Your task to perform on an android device: toggle javascript in the chrome app Image 0: 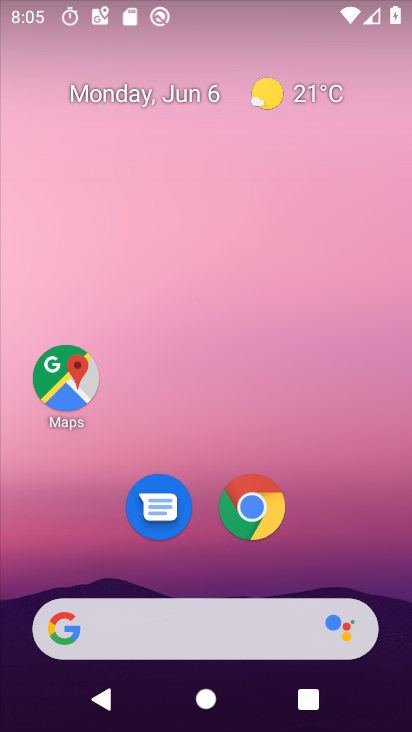
Step 0: click (236, 514)
Your task to perform on an android device: toggle javascript in the chrome app Image 1: 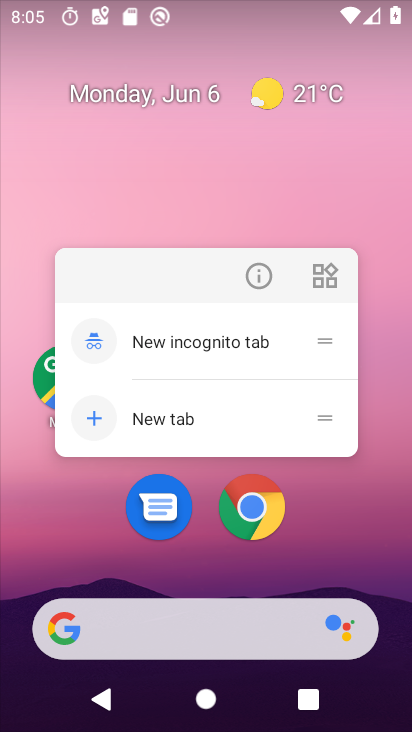
Step 1: click (234, 514)
Your task to perform on an android device: toggle javascript in the chrome app Image 2: 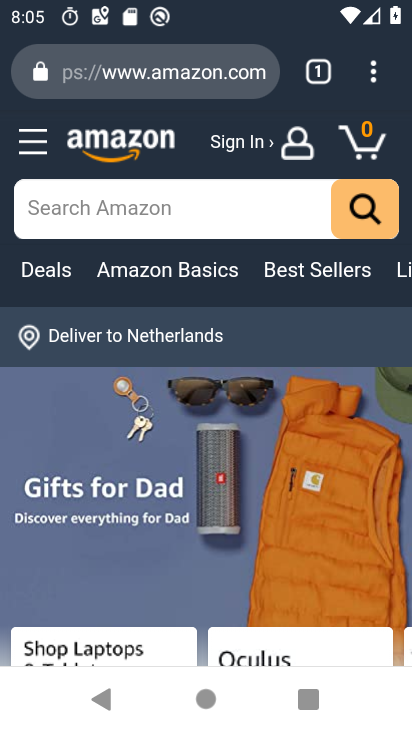
Step 2: drag from (368, 75) to (174, 514)
Your task to perform on an android device: toggle javascript in the chrome app Image 3: 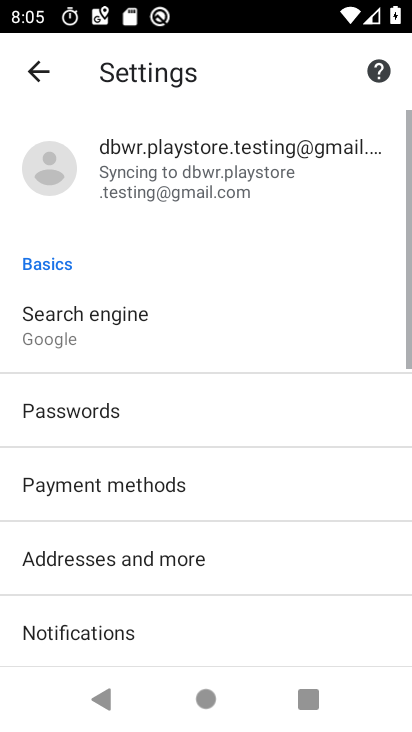
Step 3: drag from (164, 344) to (157, 122)
Your task to perform on an android device: toggle javascript in the chrome app Image 4: 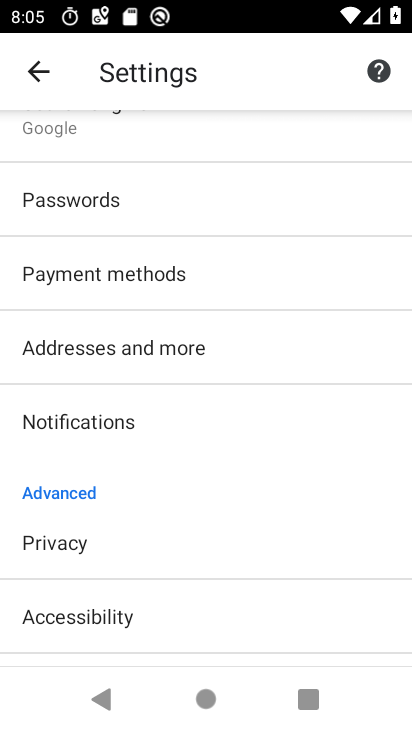
Step 4: drag from (170, 559) to (234, 97)
Your task to perform on an android device: toggle javascript in the chrome app Image 5: 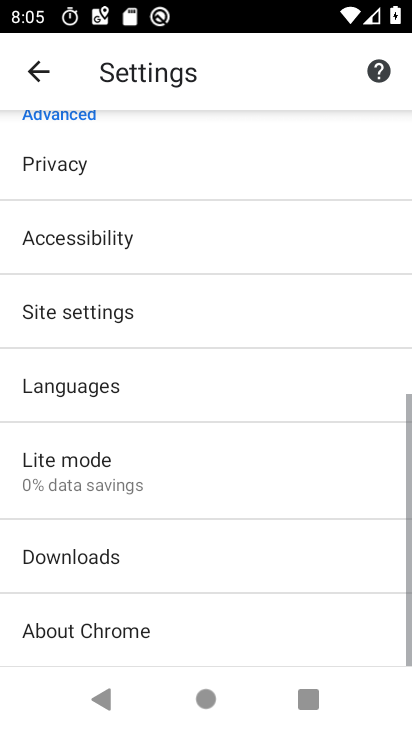
Step 5: click (107, 324)
Your task to perform on an android device: toggle javascript in the chrome app Image 6: 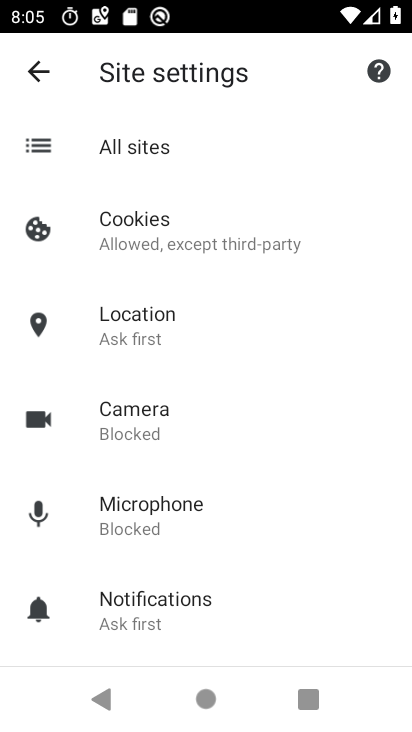
Step 6: drag from (172, 607) to (293, 174)
Your task to perform on an android device: toggle javascript in the chrome app Image 7: 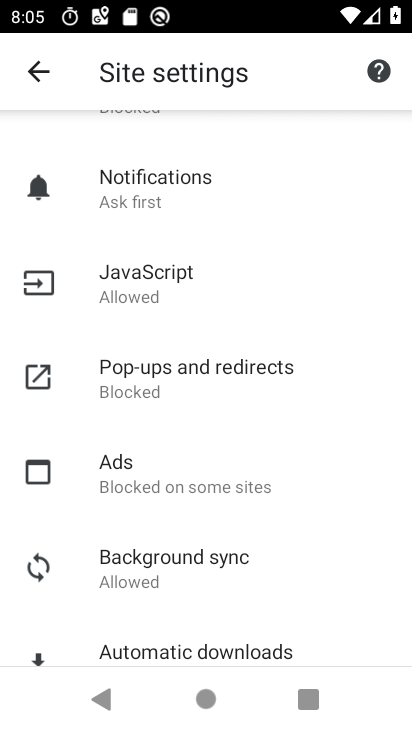
Step 7: click (63, 322)
Your task to perform on an android device: toggle javascript in the chrome app Image 8: 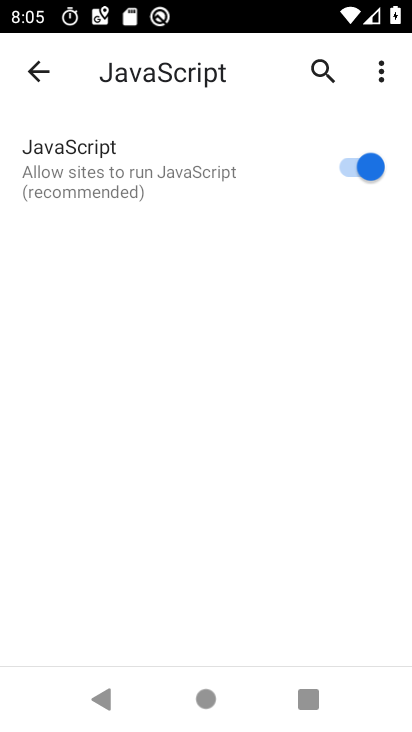
Step 8: click (300, 189)
Your task to perform on an android device: toggle javascript in the chrome app Image 9: 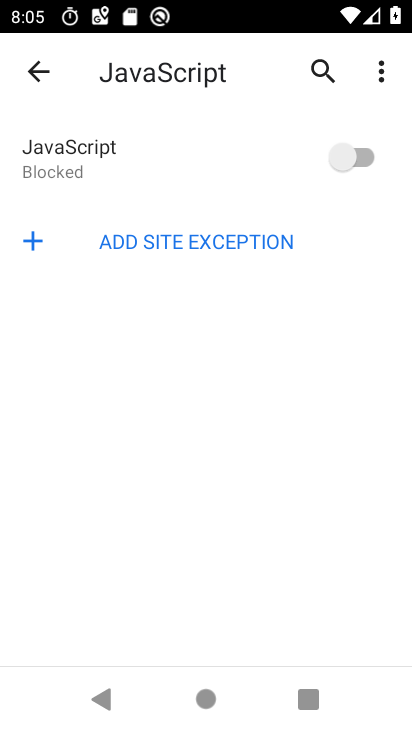
Step 9: task complete